Your task to perform on an android device: Open maps Image 0: 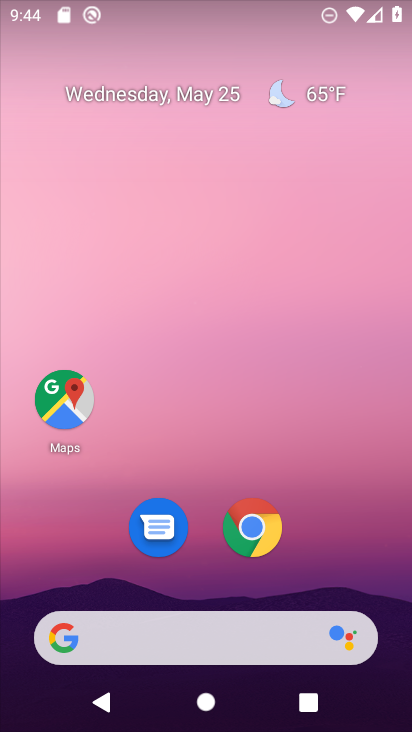
Step 0: click (67, 401)
Your task to perform on an android device: Open maps Image 1: 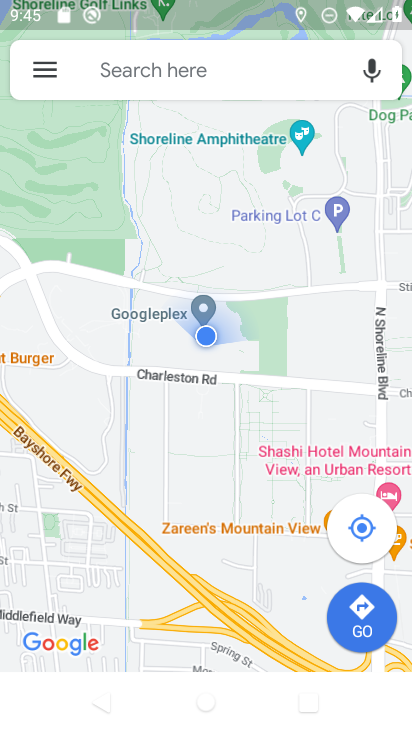
Step 1: task complete